Your task to perform on an android device: change the clock display to digital Image 0: 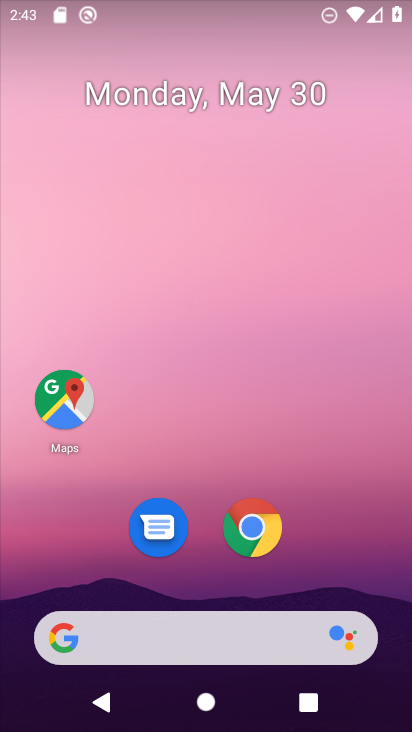
Step 0: click (403, 430)
Your task to perform on an android device: change the clock display to digital Image 1: 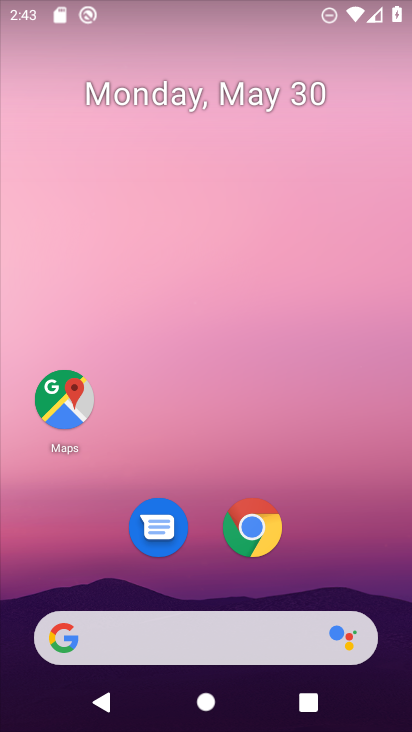
Step 1: drag from (252, 393) to (197, 176)
Your task to perform on an android device: change the clock display to digital Image 2: 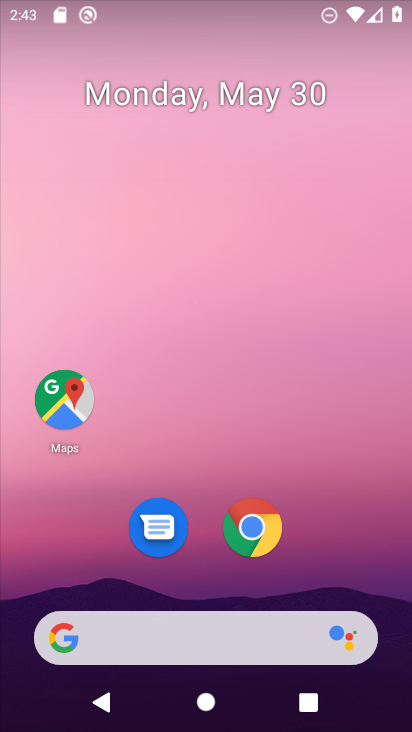
Step 2: drag from (325, 587) to (203, 65)
Your task to perform on an android device: change the clock display to digital Image 3: 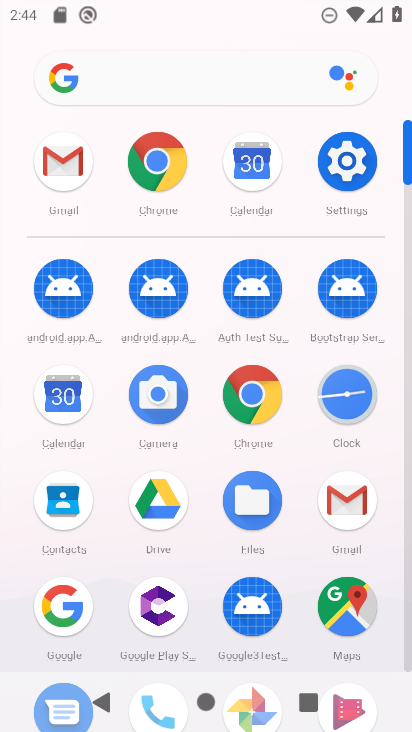
Step 3: click (336, 398)
Your task to perform on an android device: change the clock display to digital Image 4: 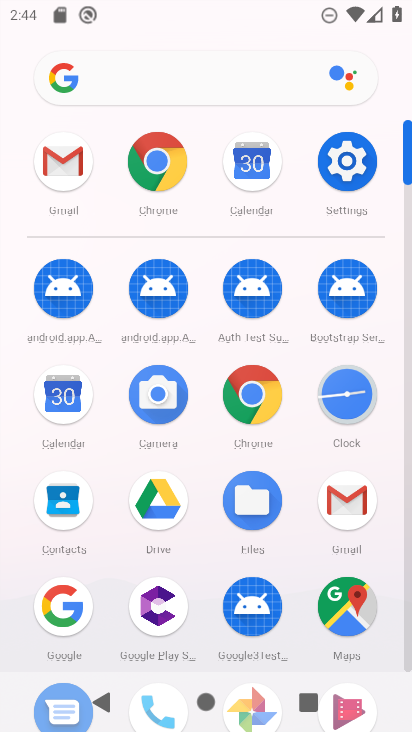
Step 4: click (336, 398)
Your task to perform on an android device: change the clock display to digital Image 5: 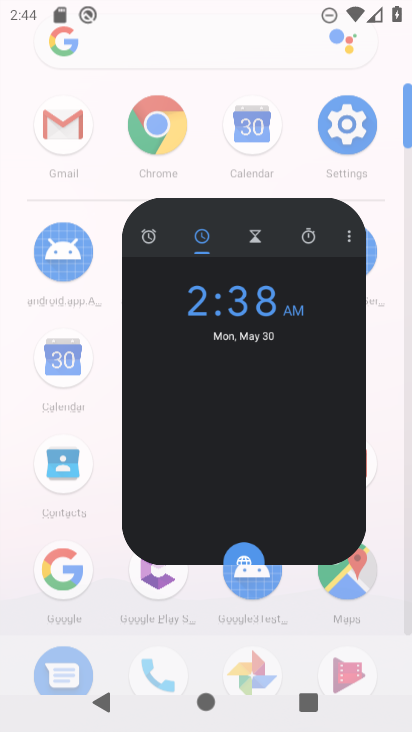
Step 5: click (336, 398)
Your task to perform on an android device: change the clock display to digital Image 6: 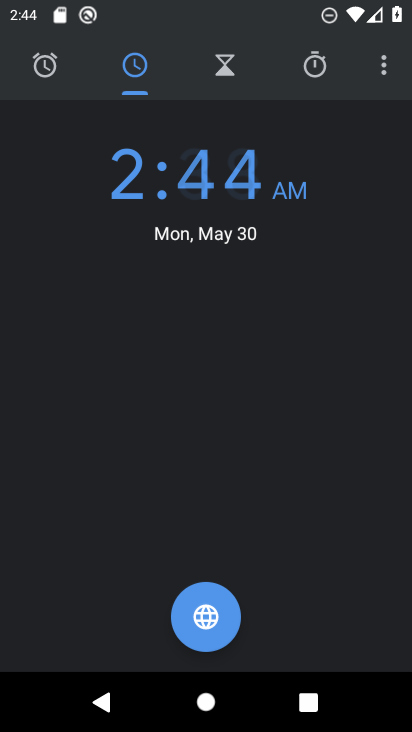
Step 6: click (336, 405)
Your task to perform on an android device: change the clock display to digital Image 7: 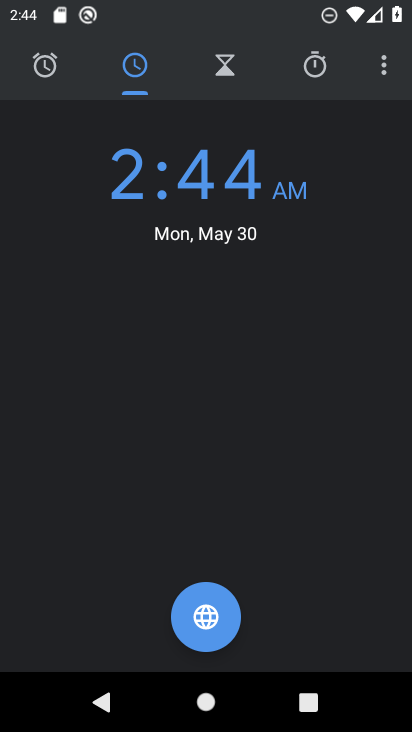
Step 7: click (338, 408)
Your task to perform on an android device: change the clock display to digital Image 8: 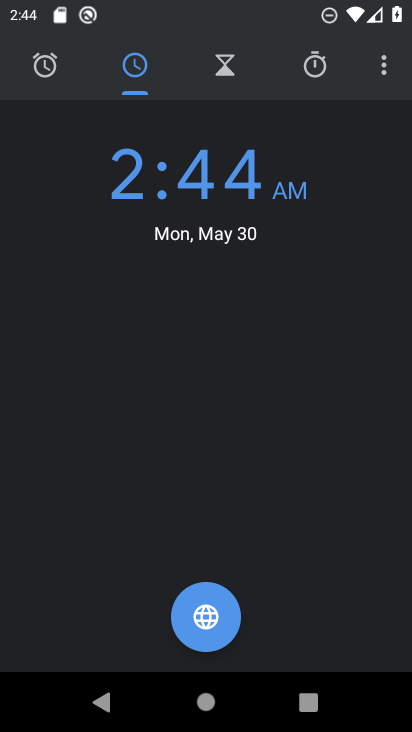
Step 8: click (374, 65)
Your task to perform on an android device: change the clock display to digital Image 9: 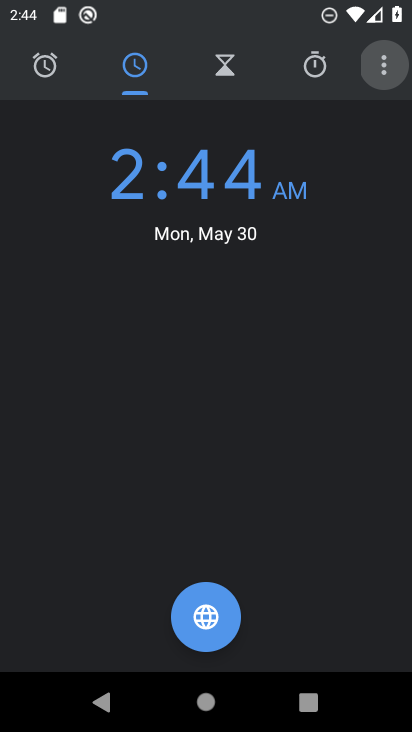
Step 9: click (374, 65)
Your task to perform on an android device: change the clock display to digital Image 10: 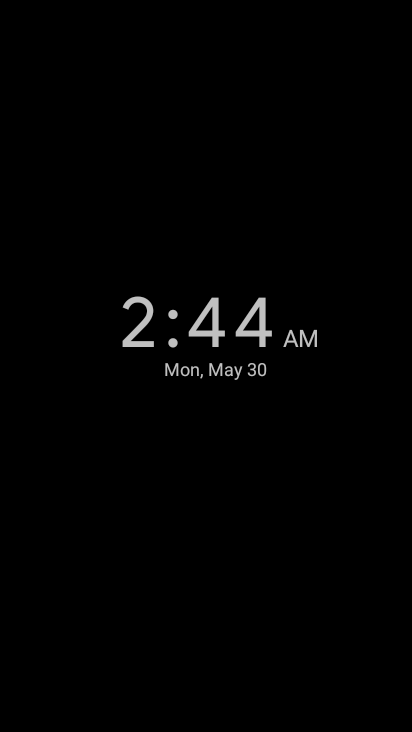
Step 10: click (298, 229)
Your task to perform on an android device: change the clock display to digital Image 11: 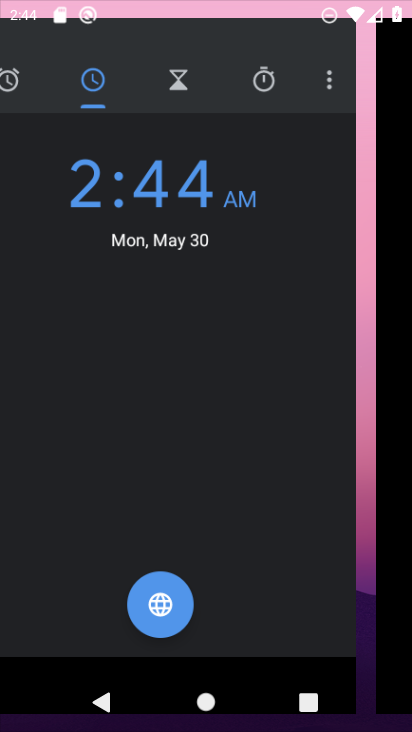
Step 11: click (298, 229)
Your task to perform on an android device: change the clock display to digital Image 12: 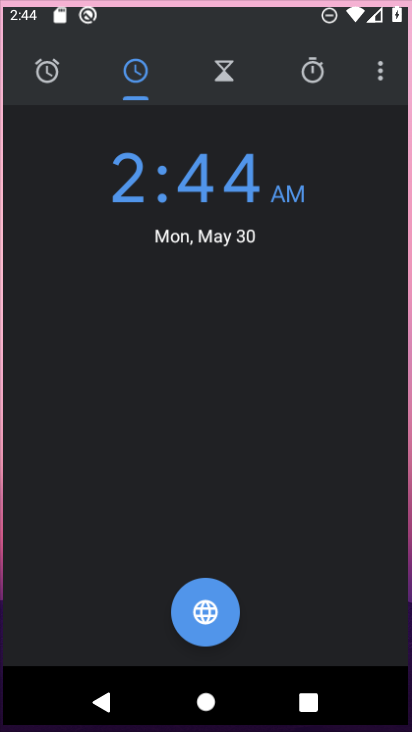
Step 12: click (298, 229)
Your task to perform on an android device: change the clock display to digital Image 13: 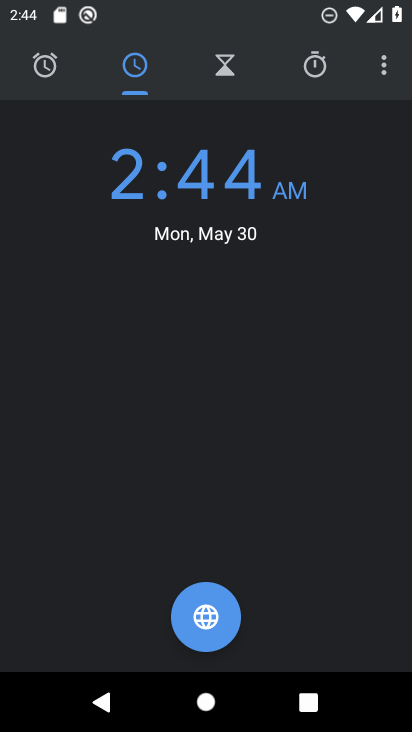
Step 13: click (298, 230)
Your task to perform on an android device: change the clock display to digital Image 14: 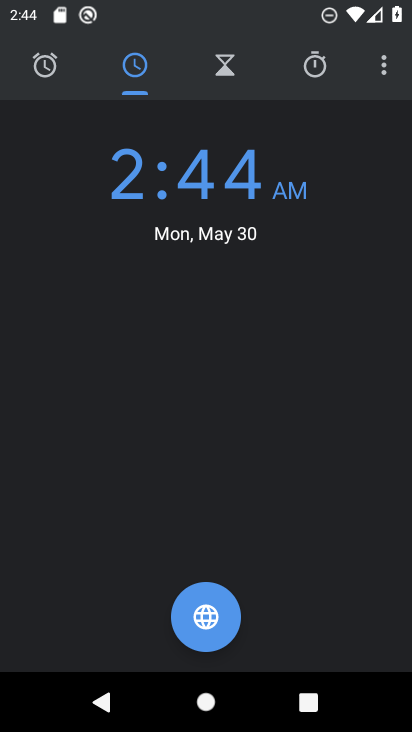
Step 14: click (295, 233)
Your task to perform on an android device: change the clock display to digital Image 15: 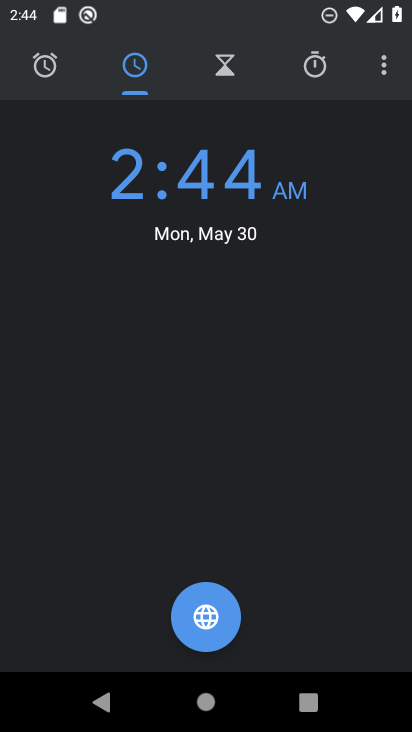
Step 15: drag from (383, 66) to (195, 125)
Your task to perform on an android device: change the clock display to digital Image 16: 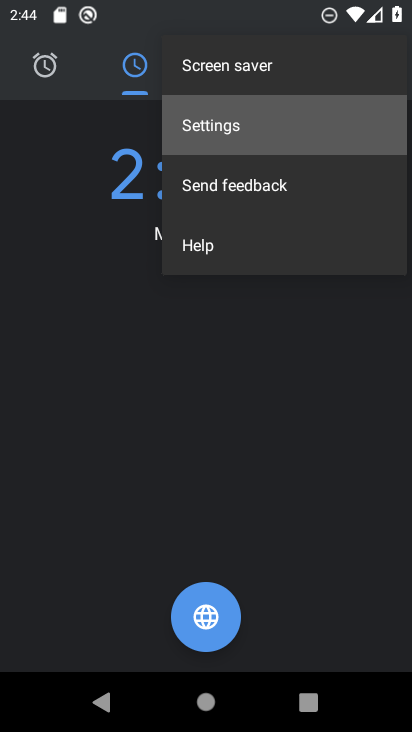
Step 16: click (197, 131)
Your task to perform on an android device: change the clock display to digital Image 17: 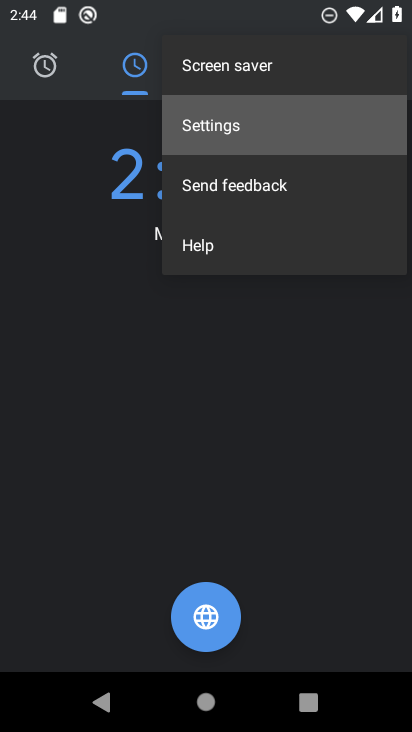
Step 17: click (199, 125)
Your task to perform on an android device: change the clock display to digital Image 18: 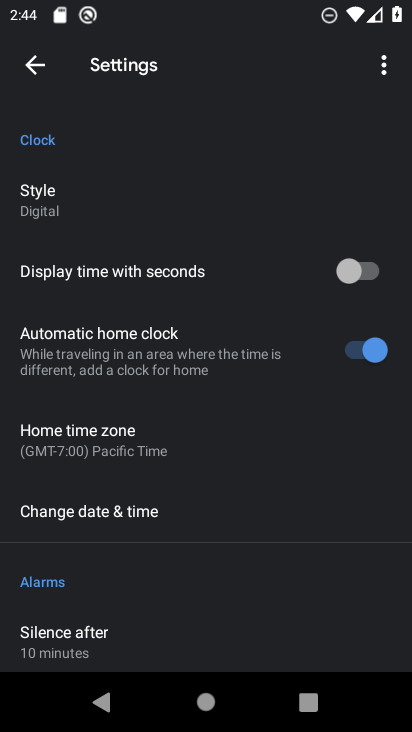
Step 18: click (104, 204)
Your task to perform on an android device: change the clock display to digital Image 19: 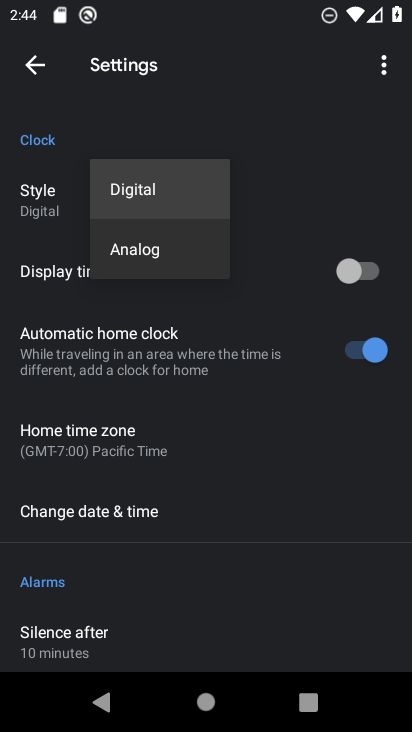
Step 19: click (142, 252)
Your task to perform on an android device: change the clock display to digital Image 20: 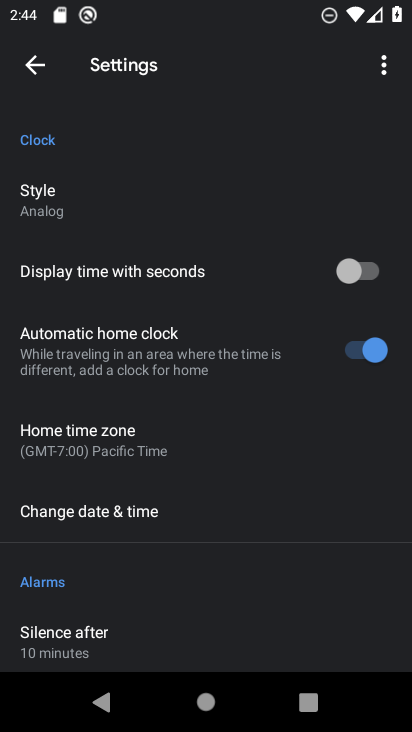
Step 20: task complete